Your task to perform on an android device: turn off sleep mode Image 0: 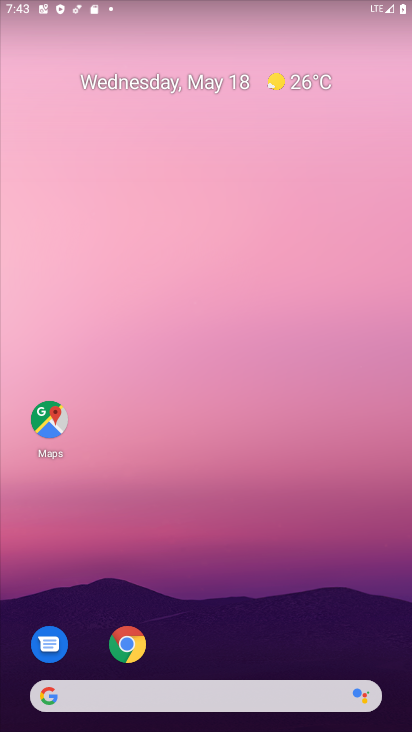
Step 0: drag from (355, 461) to (329, 288)
Your task to perform on an android device: turn off sleep mode Image 1: 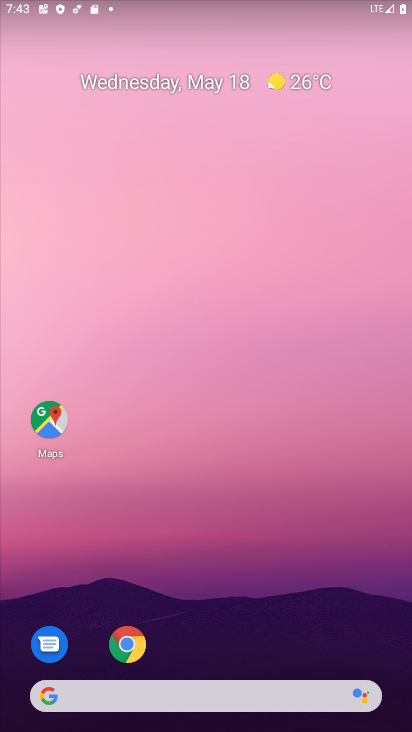
Step 1: drag from (373, 659) to (273, 142)
Your task to perform on an android device: turn off sleep mode Image 2: 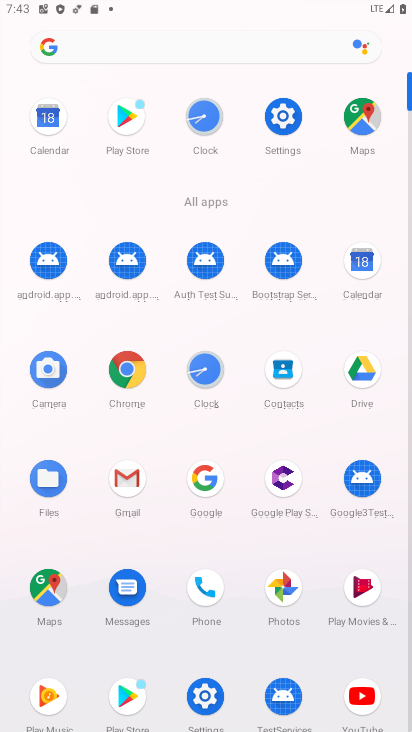
Step 2: click (274, 119)
Your task to perform on an android device: turn off sleep mode Image 3: 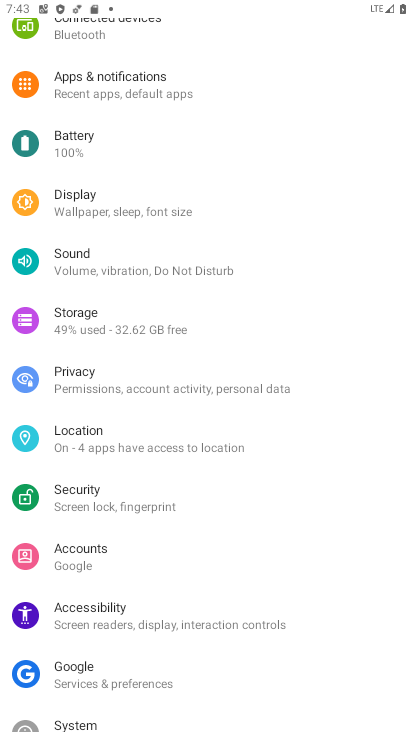
Step 3: click (81, 196)
Your task to perform on an android device: turn off sleep mode Image 4: 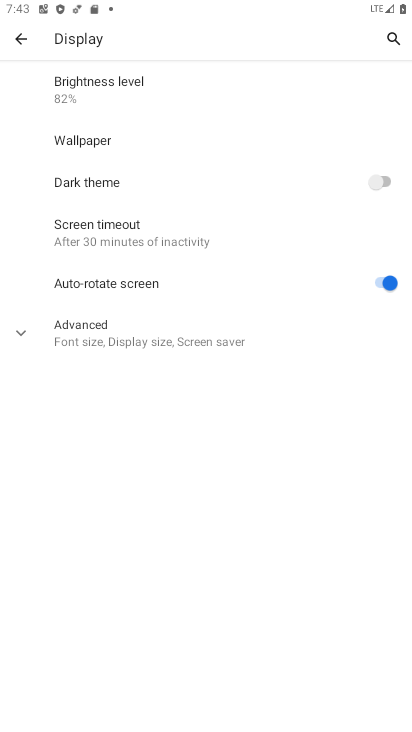
Step 4: click (149, 235)
Your task to perform on an android device: turn off sleep mode Image 5: 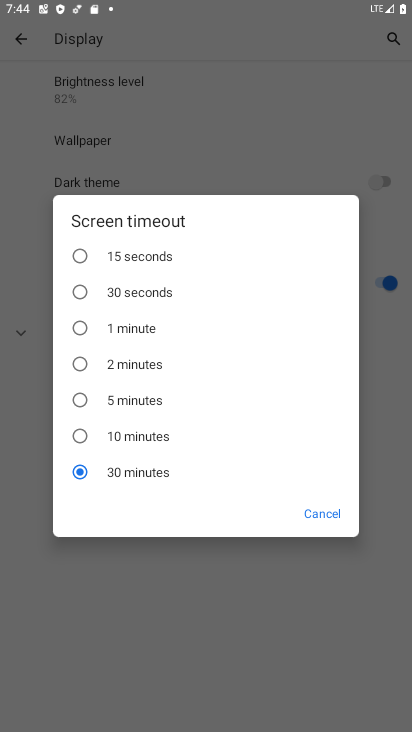
Step 5: task complete